Your task to perform on an android device: Open accessibility settings Image 0: 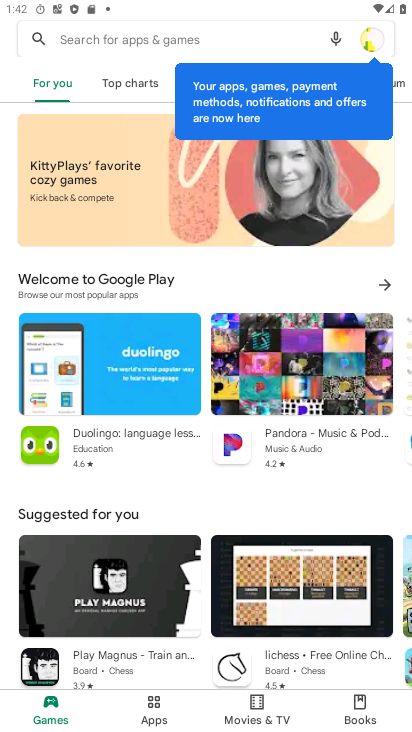
Step 0: press home button
Your task to perform on an android device: Open accessibility settings Image 1: 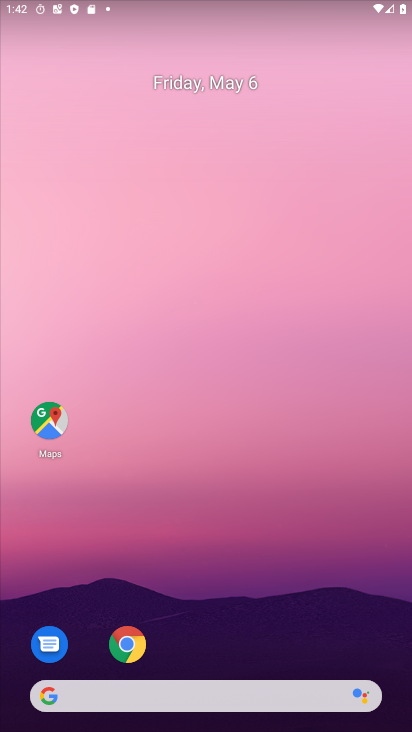
Step 1: drag from (67, 721) to (207, 13)
Your task to perform on an android device: Open accessibility settings Image 2: 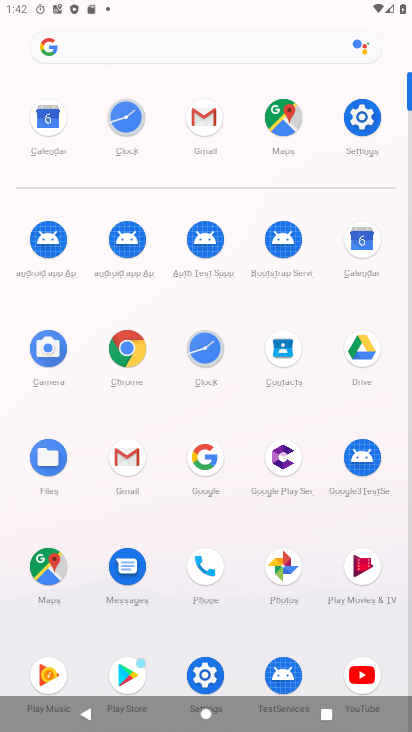
Step 2: click (347, 125)
Your task to perform on an android device: Open accessibility settings Image 3: 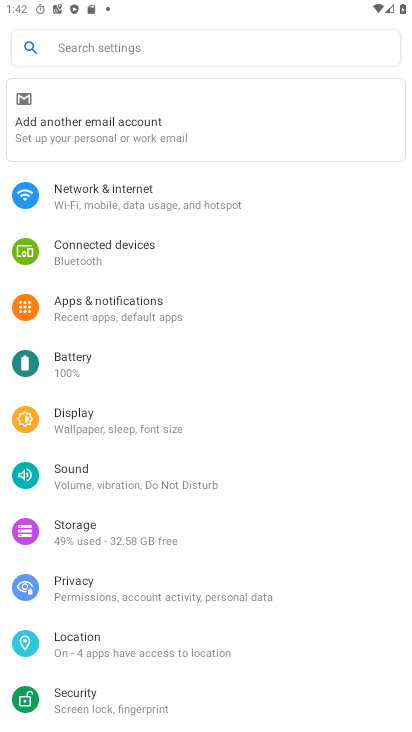
Step 3: drag from (195, 662) to (184, 162)
Your task to perform on an android device: Open accessibility settings Image 4: 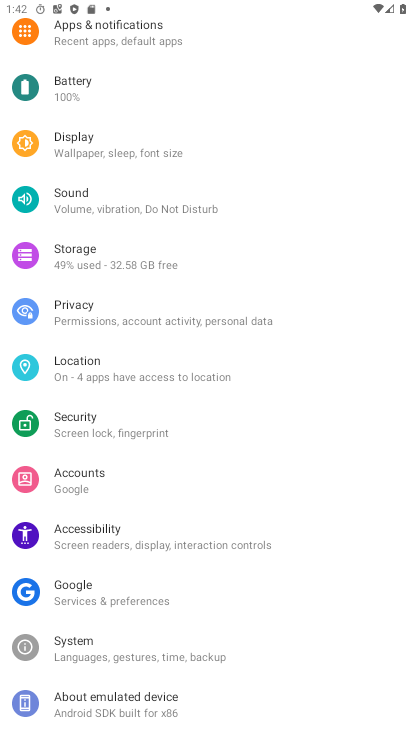
Step 4: click (147, 543)
Your task to perform on an android device: Open accessibility settings Image 5: 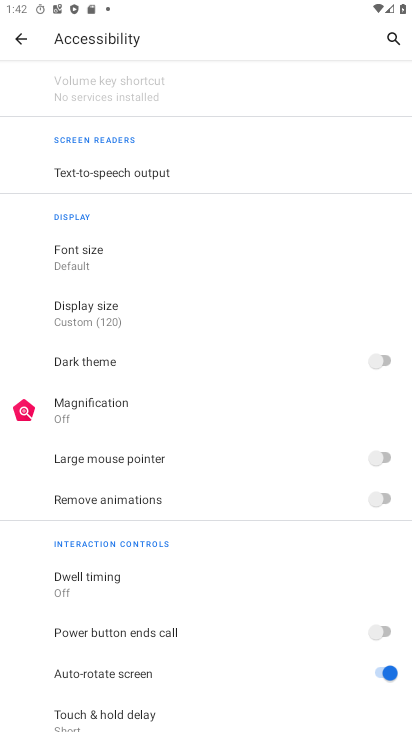
Step 5: task complete